Your task to perform on an android device: Show me popular videos on Youtube Image 0: 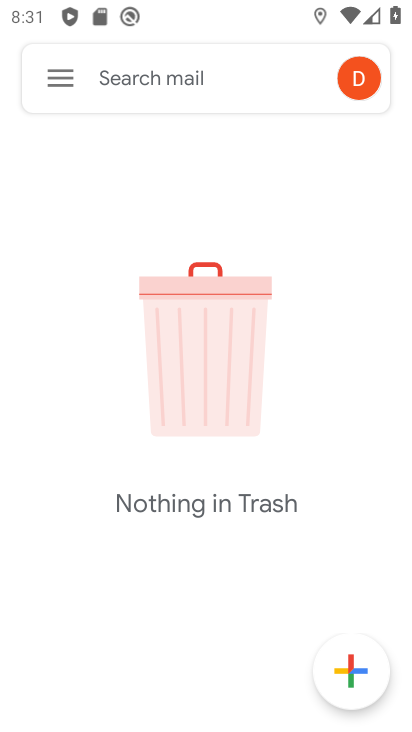
Step 0: press home button
Your task to perform on an android device: Show me popular videos on Youtube Image 1: 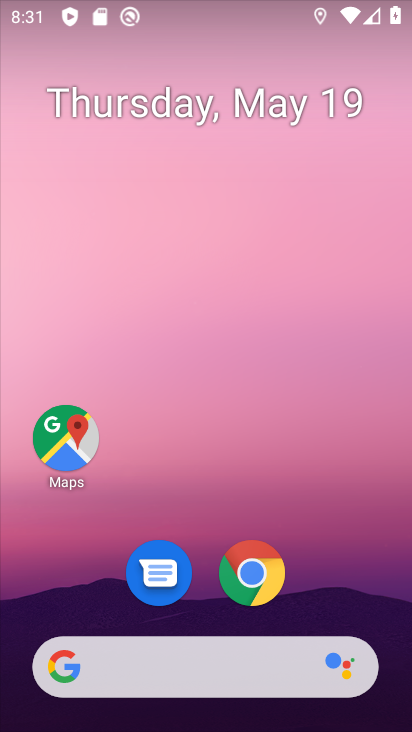
Step 1: drag from (358, 612) to (299, 29)
Your task to perform on an android device: Show me popular videos on Youtube Image 2: 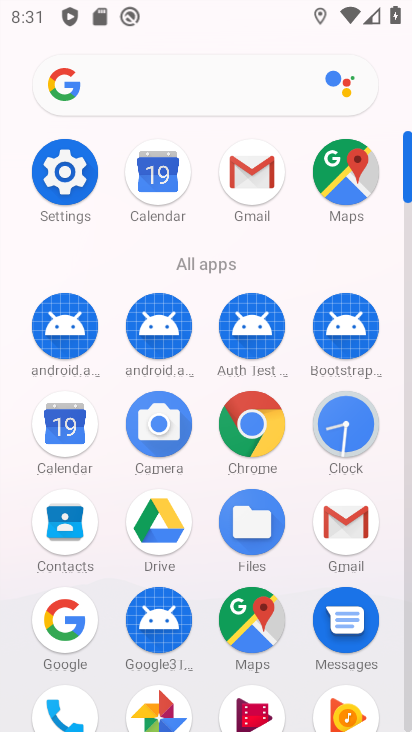
Step 2: click (406, 512)
Your task to perform on an android device: Show me popular videos on Youtube Image 3: 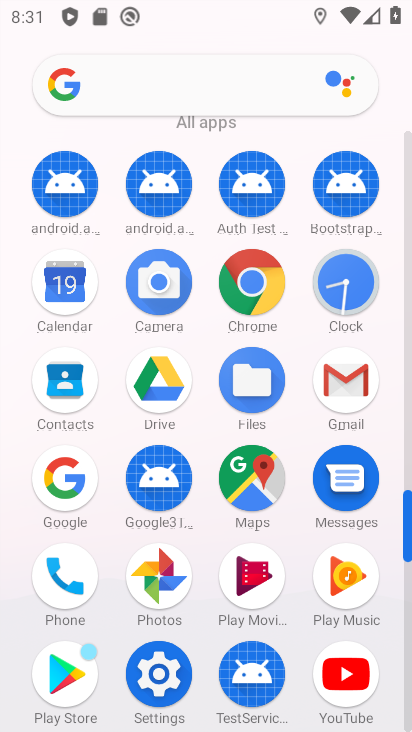
Step 3: click (340, 668)
Your task to perform on an android device: Show me popular videos on Youtube Image 4: 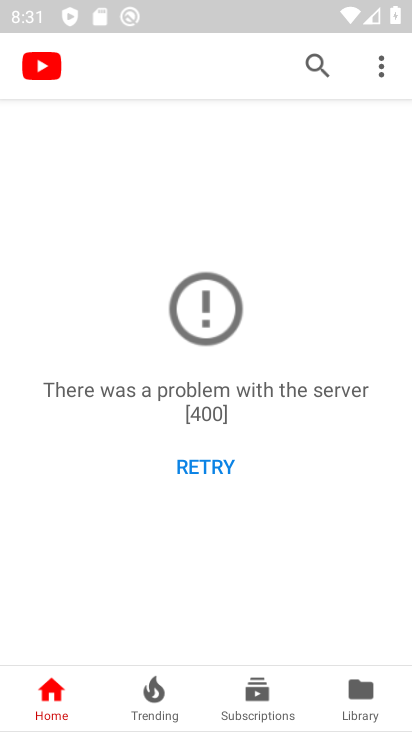
Step 4: task complete